Your task to perform on an android device: open app "Fetch Rewards" Image 0: 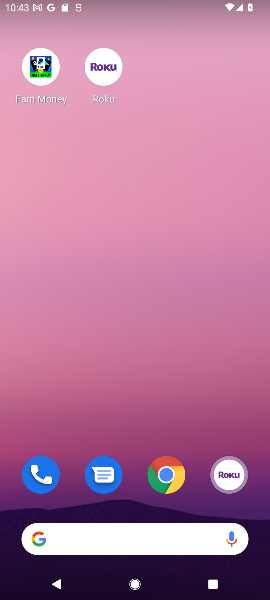
Step 0: press home button
Your task to perform on an android device: open app "Fetch Rewards" Image 1: 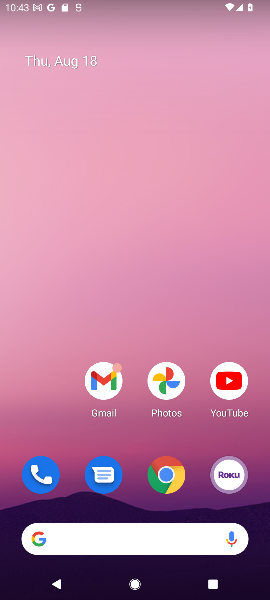
Step 1: drag from (136, 445) to (177, 4)
Your task to perform on an android device: open app "Fetch Rewards" Image 2: 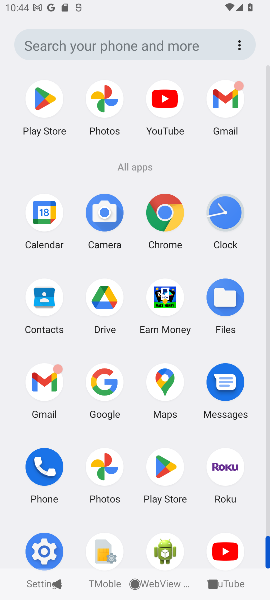
Step 2: click (42, 95)
Your task to perform on an android device: open app "Fetch Rewards" Image 3: 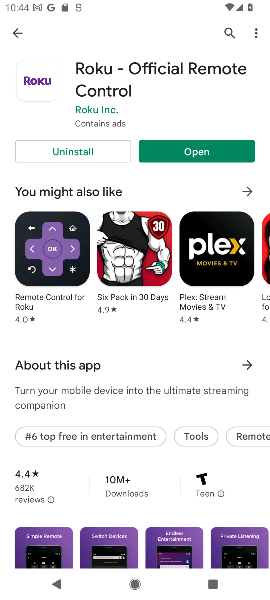
Step 3: click (225, 32)
Your task to perform on an android device: open app "Fetch Rewards" Image 4: 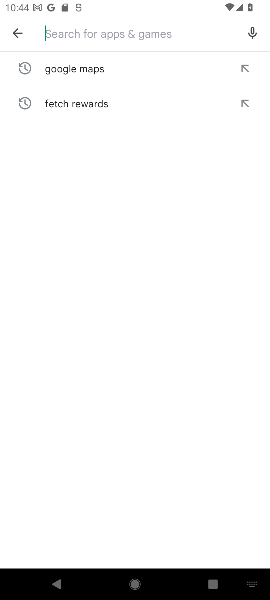
Step 4: type "Fetch Rewards"
Your task to perform on an android device: open app "Fetch Rewards" Image 5: 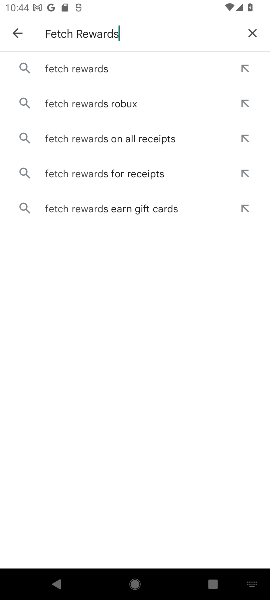
Step 5: type ""
Your task to perform on an android device: open app "Fetch Rewards" Image 6: 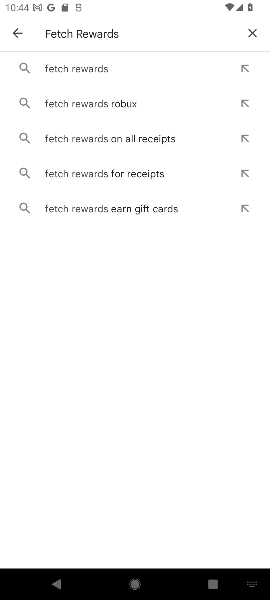
Step 6: click (107, 65)
Your task to perform on an android device: open app "Fetch Rewards" Image 7: 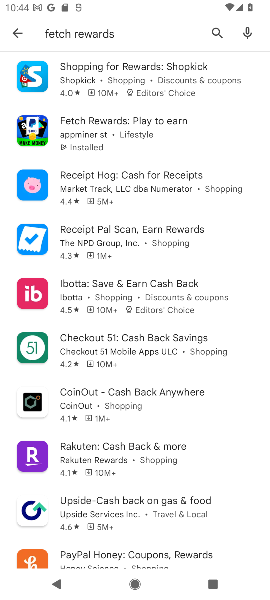
Step 7: click (161, 132)
Your task to perform on an android device: open app "Fetch Rewards" Image 8: 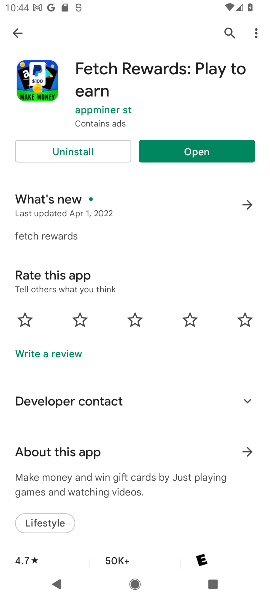
Step 8: click (200, 155)
Your task to perform on an android device: open app "Fetch Rewards" Image 9: 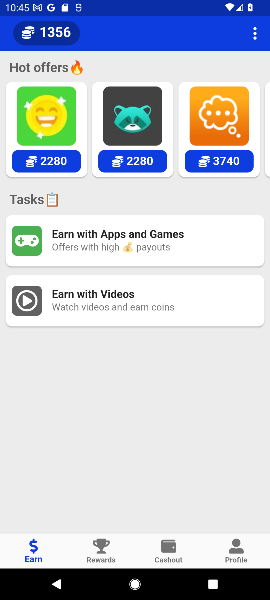
Step 9: task complete